Your task to perform on an android device: Go to sound settings Image 0: 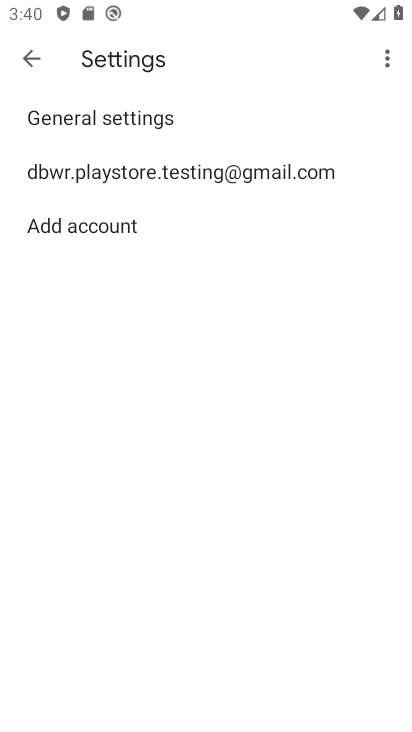
Step 0: click (28, 54)
Your task to perform on an android device: Go to sound settings Image 1: 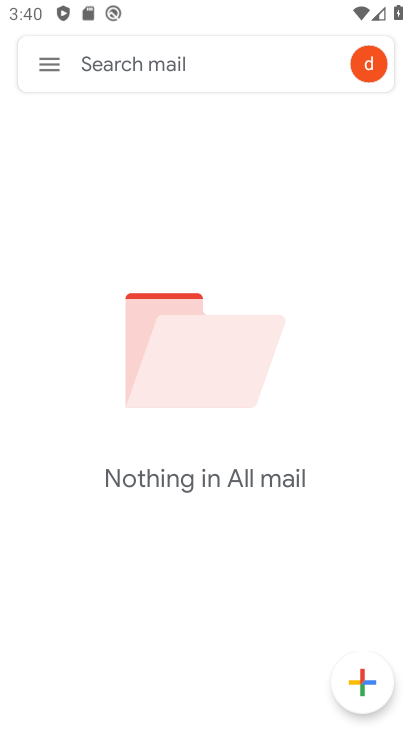
Step 1: press home button
Your task to perform on an android device: Go to sound settings Image 2: 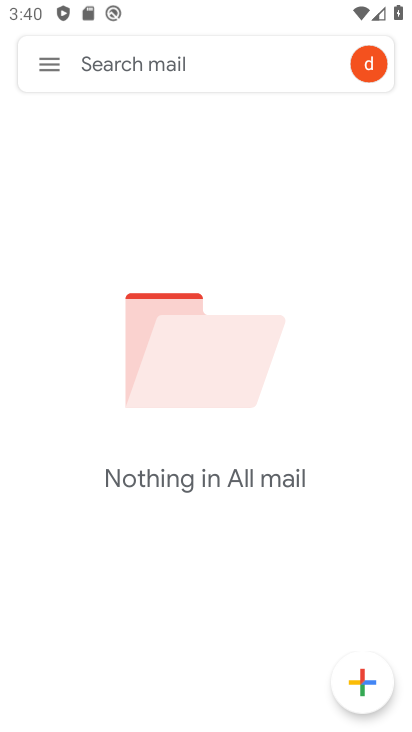
Step 2: press home button
Your task to perform on an android device: Go to sound settings Image 3: 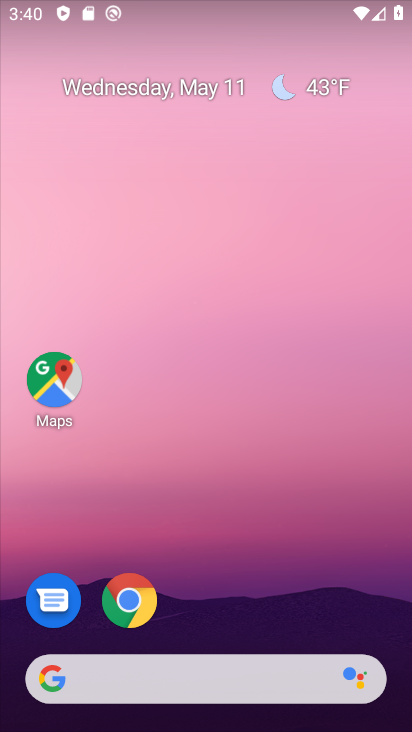
Step 3: drag from (337, 594) to (179, 154)
Your task to perform on an android device: Go to sound settings Image 4: 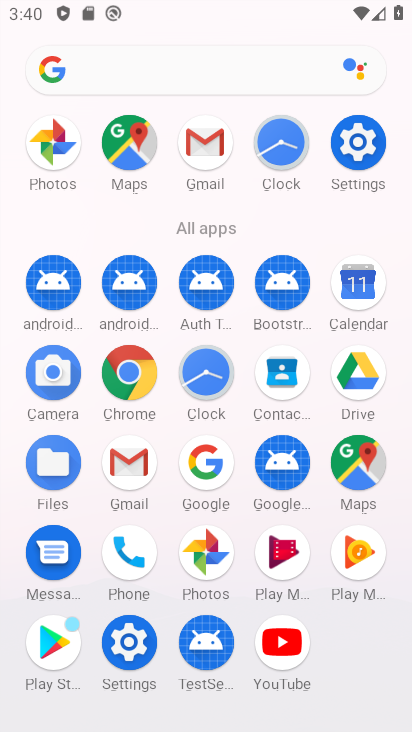
Step 4: click (349, 155)
Your task to perform on an android device: Go to sound settings Image 5: 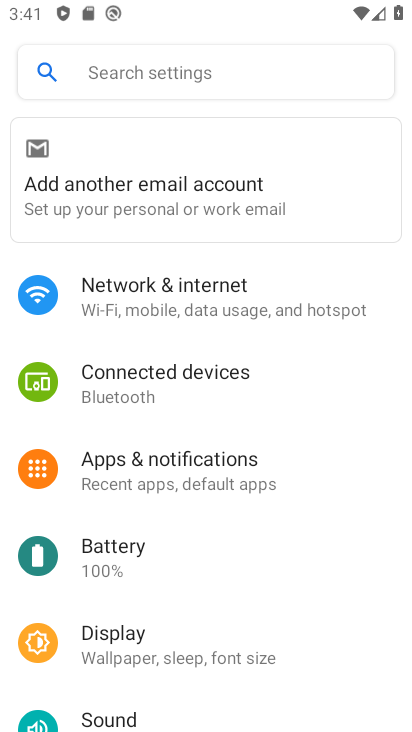
Step 5: drag from (207, 562) to (235, 142)
Your task to perform on an android device: Go to sound settings Image 6: 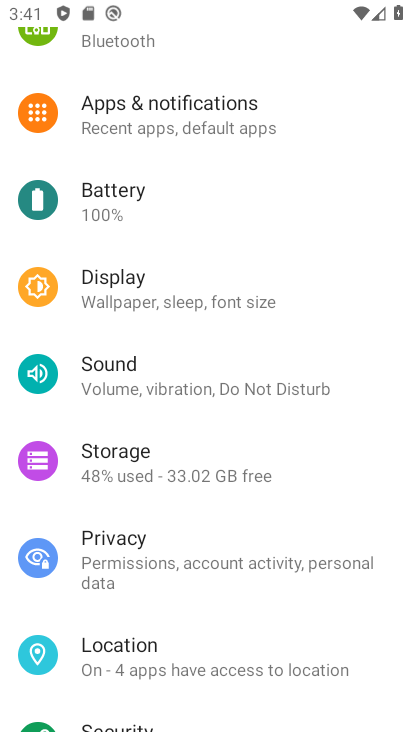
Step 6: drag from (227, 421) to (248, 60)
Your task to perform on an android device: Go to sound settings Image 7: 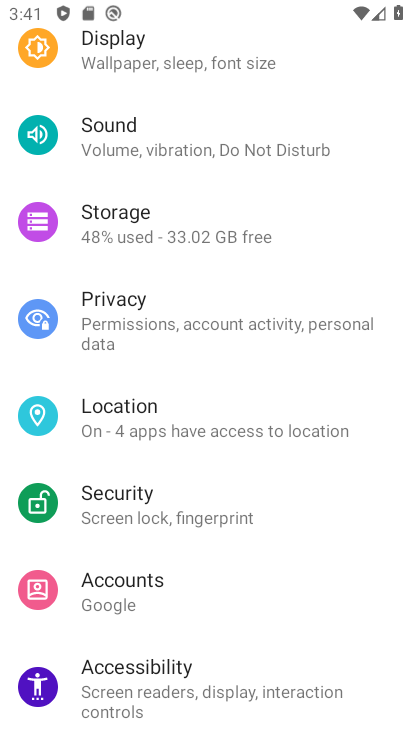
Step 7: click (114, 132)
Your task to perform on an android device: Go to sound settings Image 8: 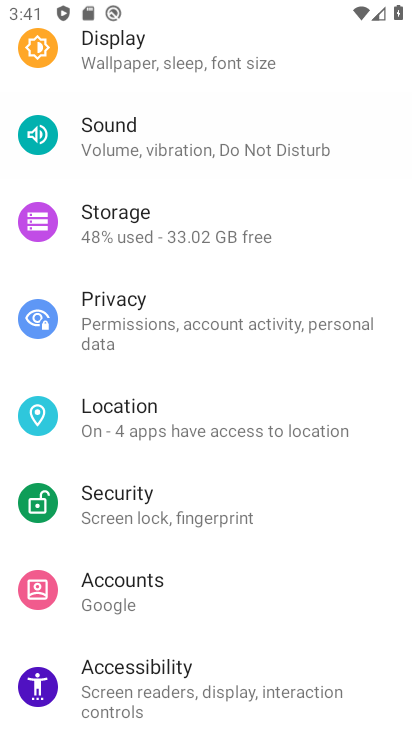
Step 8: click (118, 136)
Your task to perform on an android device: Go to sound settings Image 9: 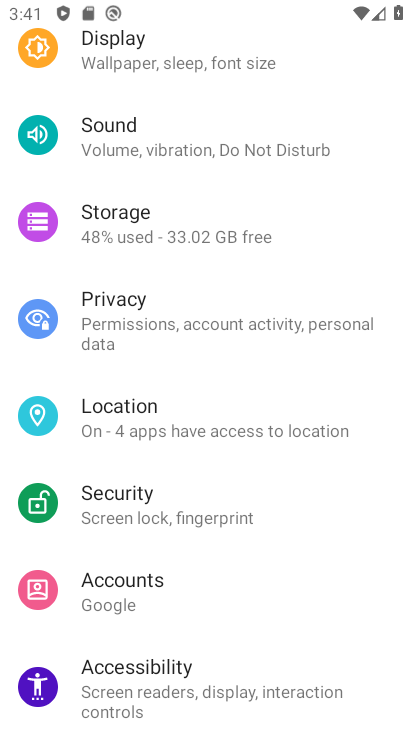
Step 9: click (119, 144)
Your task to perform on an android device: Go to sound settings Image 10: 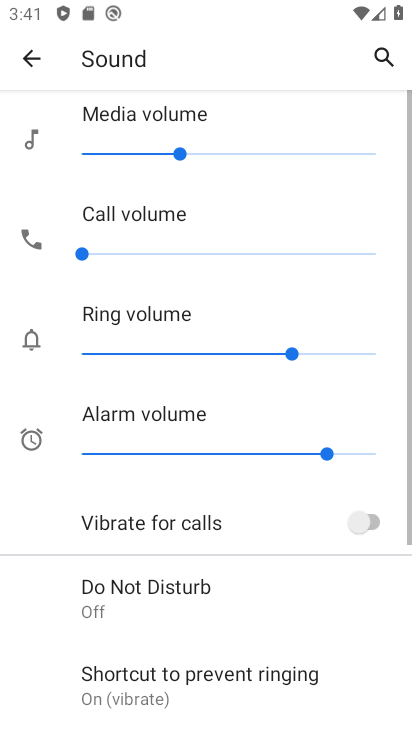
Step 10: drag from (182, 500) to (170, 210)
Your task to perform on an android device: Go to sound settings Image 11: 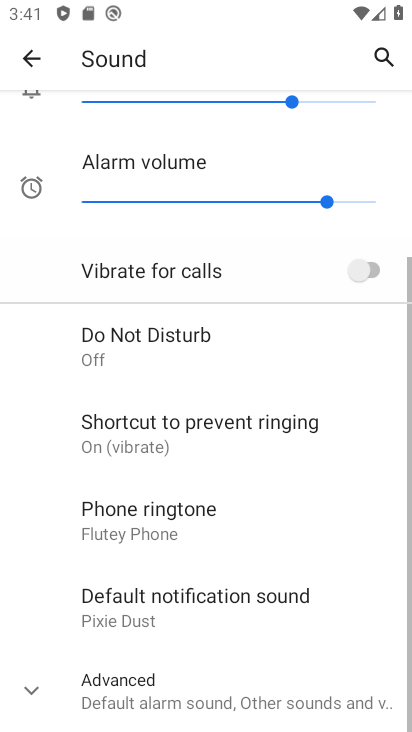
Step 11: drag from (230, 365) to (244, 41)
Your task to perform on an android device: Go to sound settings Image 12: 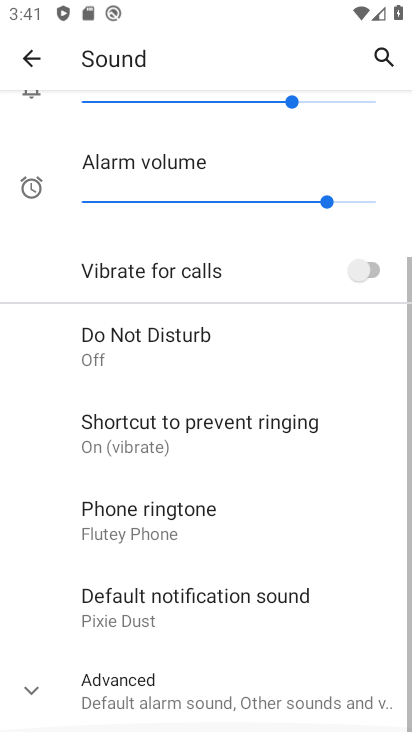
Step 12: drag from (195, 431) to (207, 26)
Your task to perform on an android device: Go to sound settings Image 13: 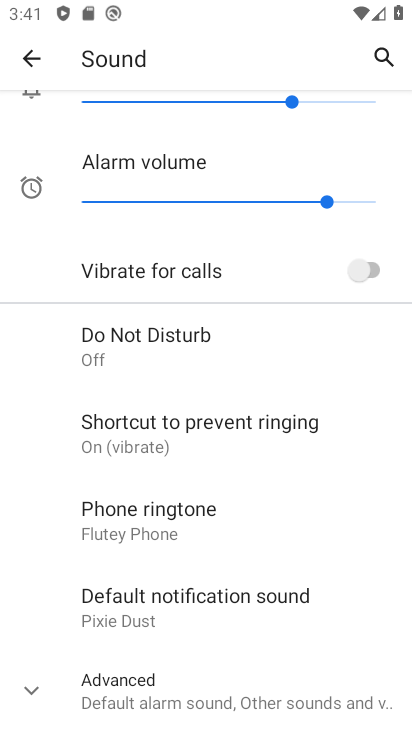
Step 13: click (124, 214)
Your task to perform on an android device: Go to sound settings Image 14: 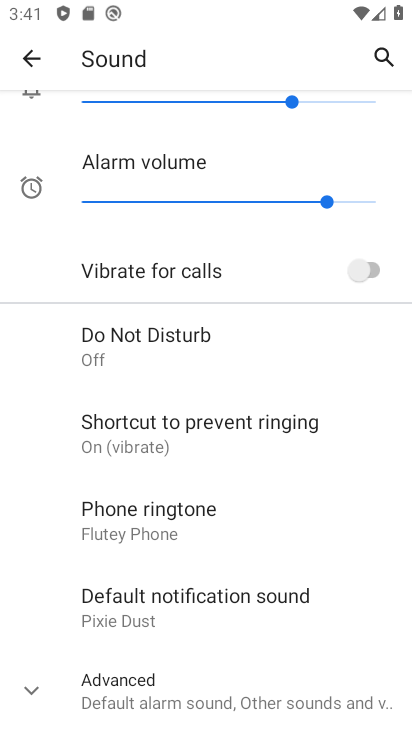
Step 14: task complete